Your task to perform on an android device: toggle notification dots Image 0: 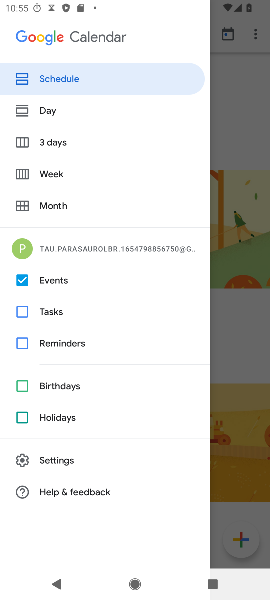
Step 0: press home button
Your task to perform on an android device: toggle notification dots Image 1: 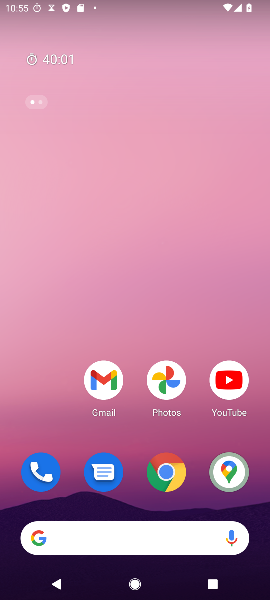
Step 1: drag from (199, 309) to (101, 8)
Your task to perform on an android device: toggle notification dots Image 2: 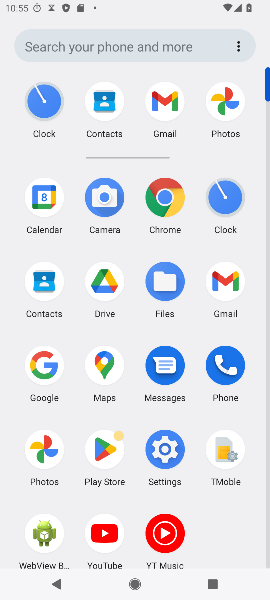
Step 2: click (161, 451)
Your task to perform on an android device: toggle notification dots Image 3: 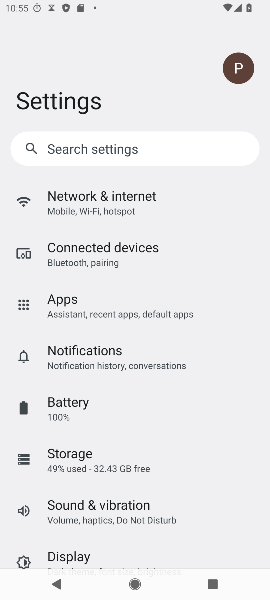
Step 3: click (145, 350)
Your task to perform on an android device: toggle notification dots Image 4: 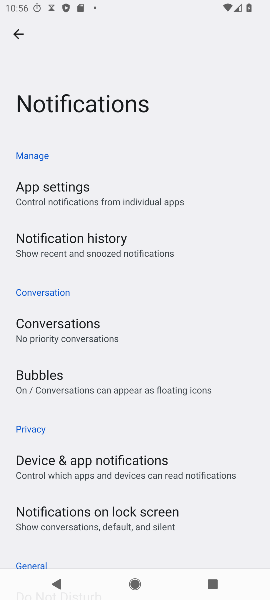
Step 4: drag from (164, 531) to (159, 256)
Your task to perform on an android device: toggle notification dots Image 5: 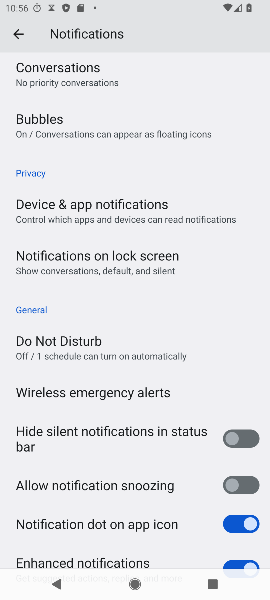
Step 5: click (236, 533)
Your task to perform on an android device: toggle notification dots Image 6: 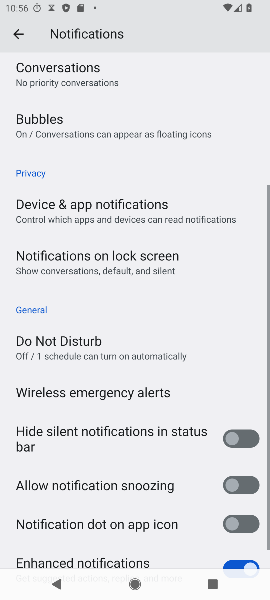
Step 6: task complete